Your task to perform on an android device: all mails in gmail Image 0: 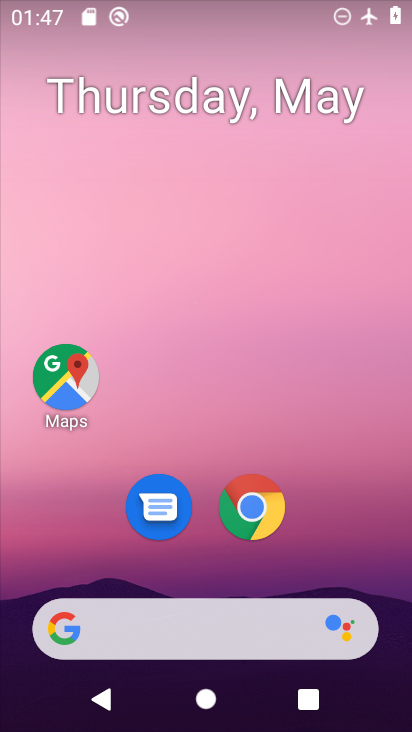
Step 0: drag from (390, 554) to (276, 27)
Your task to perform on an android device: all mails in gmail Image 1: 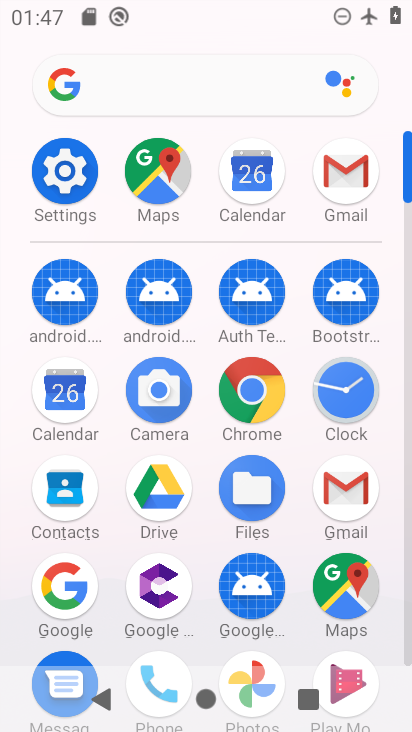
Step 1: click (338, 502)
Your task to perform on an android device: all mails in gmail Image 2: 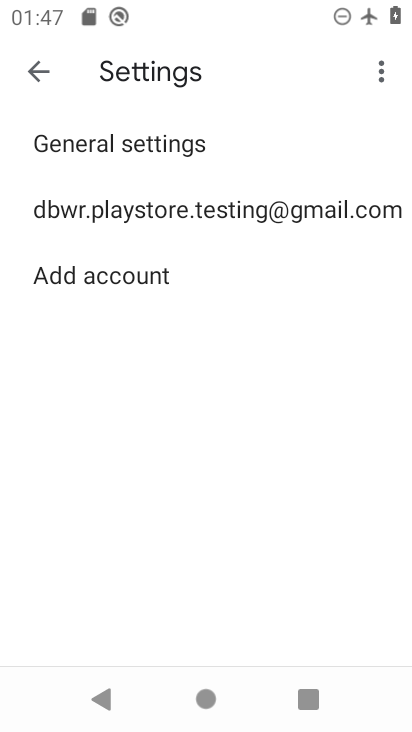
Step 2: click (29, 77)
Your task to perform on an android device: all mails in gmail Image 3: 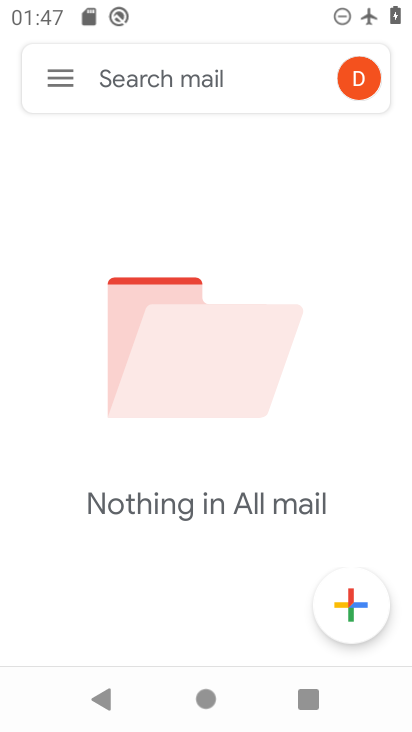
Step 3: click (51, 85)
Your task to perform on an android device: all mails in gmail Image 4: 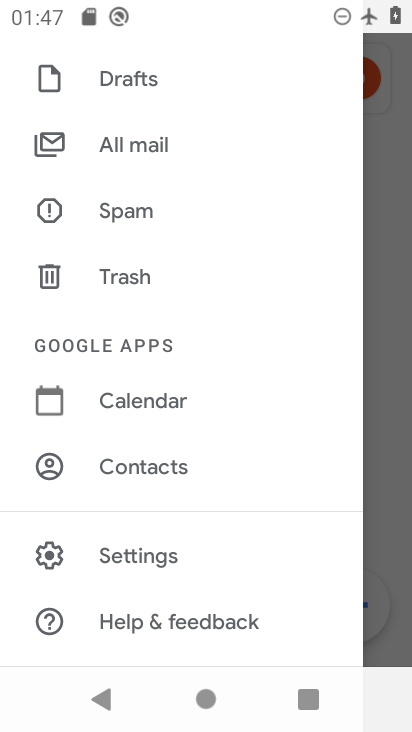
Step 4: click (93, 159)
Your task to perform on an android device: all mails in gmail Image 5: 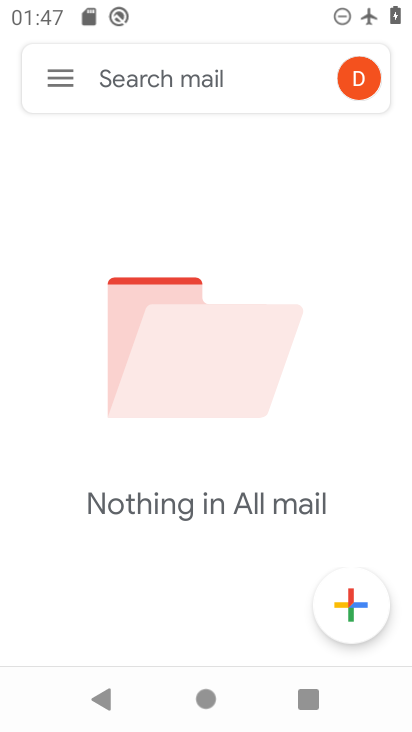
Step 5: task complete